Your task to perform on an android device: Open the calendar and show me this week's events? Image 0: 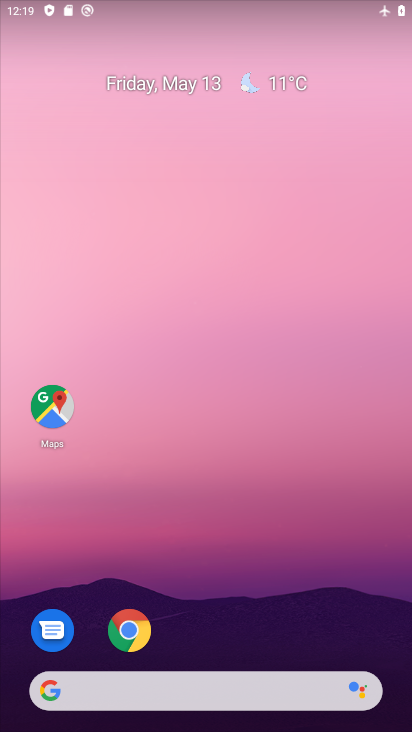
Step 0: drag from (364, 643) to (363, 3)
Your task to perform on an android device: Open the calendar and show me this week's events? Image 1: 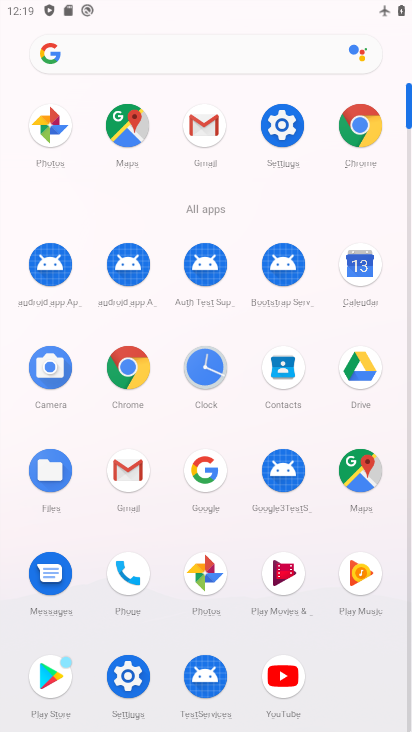
Step 1: click (364, 261)
Your task to perform on an android device: Open the calendar and show me this week's events? Image 2: 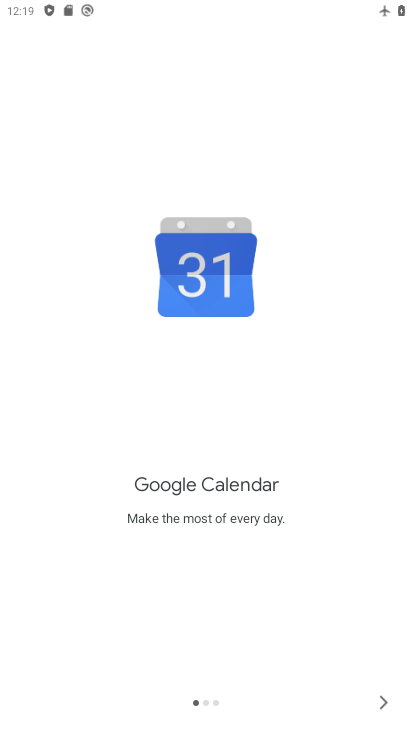
Step 2: click (384, 710)
Your task to perform on an android device: Open the calendar and show me this week's events? Image 3: 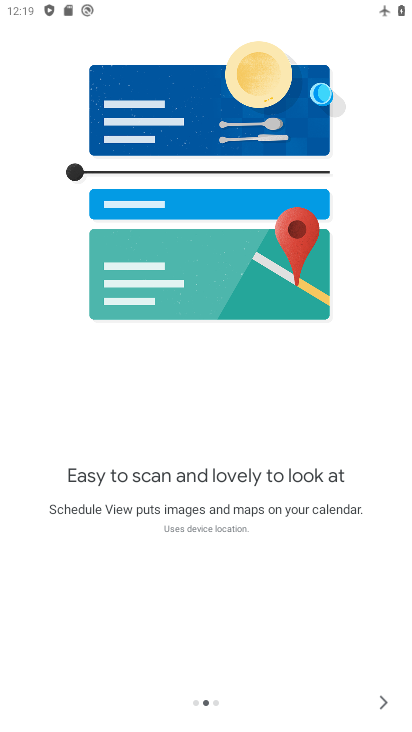
Step 3: click (384, 710)
Your task to perform on an android device: Open the calendar and show me this week's events? Image 4: 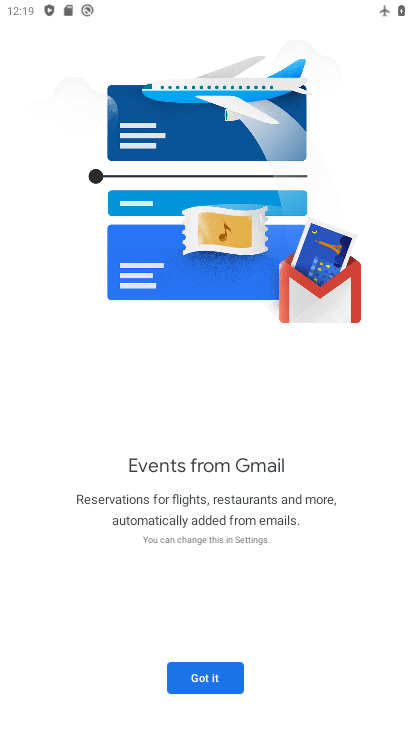
Step 4: click (194, 679)
Your task to perform on an android device: Open the calendar and show me this week's events? Image 5: 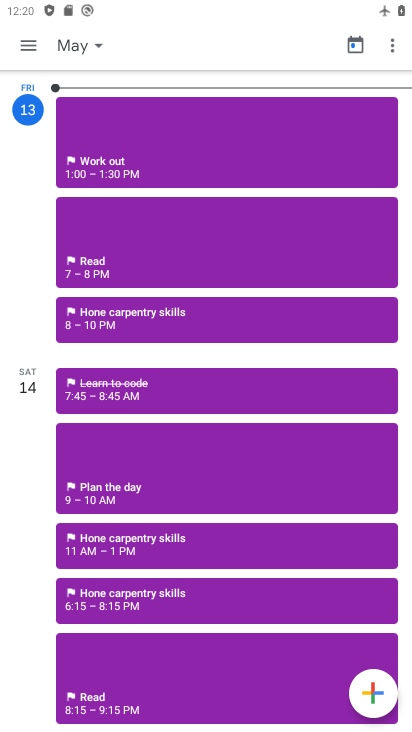
Step 5: click (33, 45)
Your task to perform on an android device: Open the calendar and show me this week's events? Image 6: 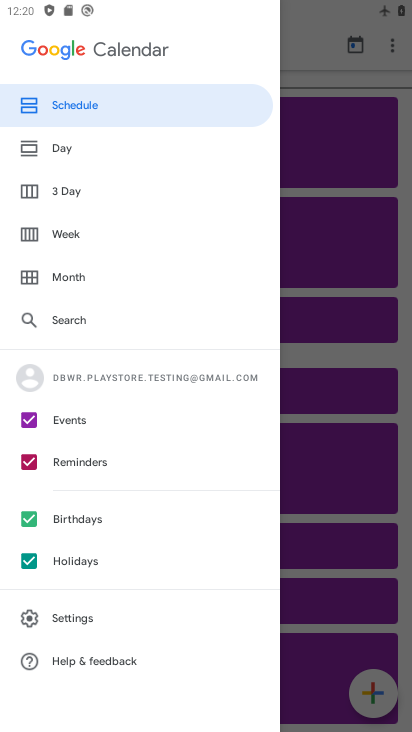
Step 6: click (27, 462)
Your task to perform on an android device: Open the calendar and show me this week's events? Image 7: 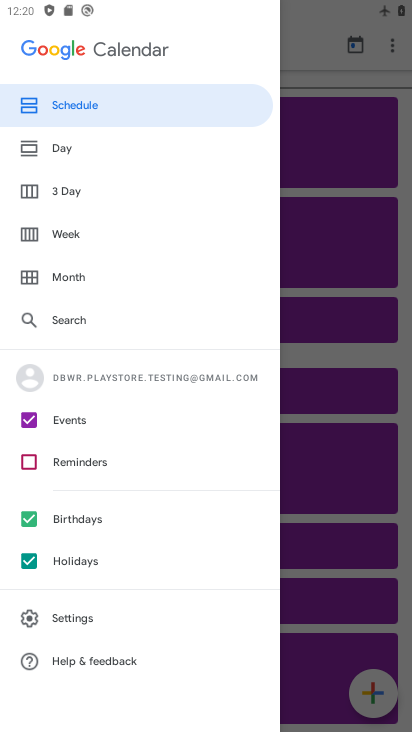
Step 7: click (24, 523)
Your task to perform on an android device: Open the calendar and show me this week's events? Image 8: 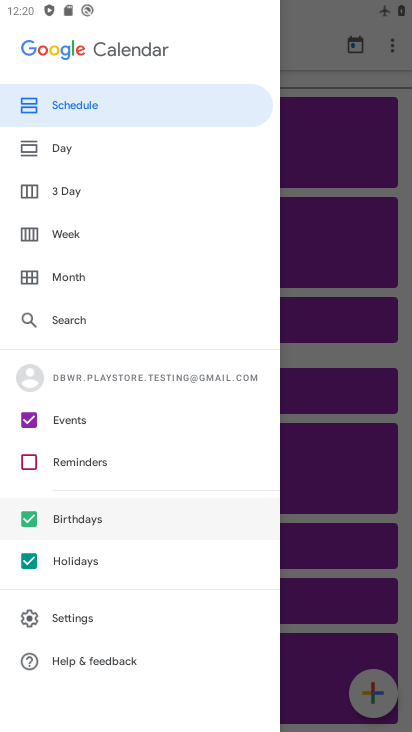
Step 8: click (23, 552)
Your task to perform on an android device: Open the calendar and show me this week's events? Image 9: 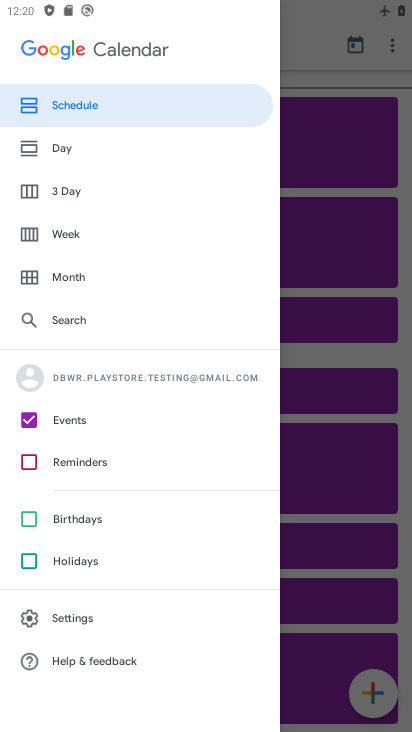
Step 9: click (37, 105)
Your task to perform on an android device: Open the calendar and show me this week's events? Image 10: 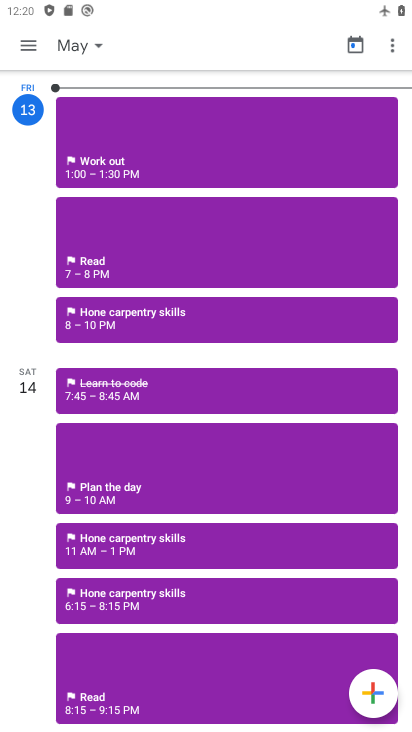
Step 10: click (27, 44)
Your task to perform on an android device: Open the calendar and show me this week's events? Image 11: 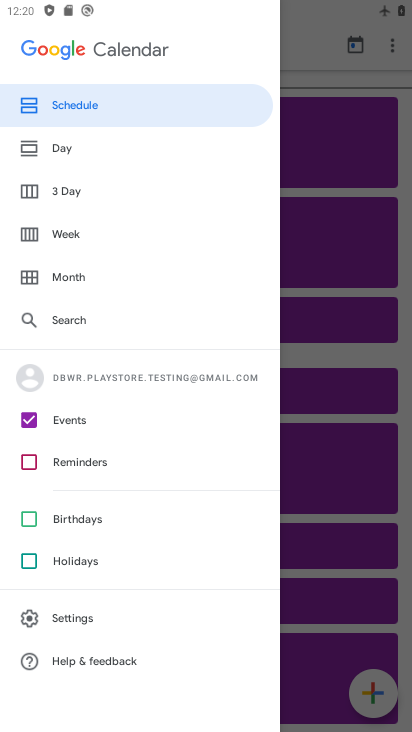
Step 11: click (64, 240)
Your task to perform on an android device: Open the calendar and show me this week's events? Image 12: 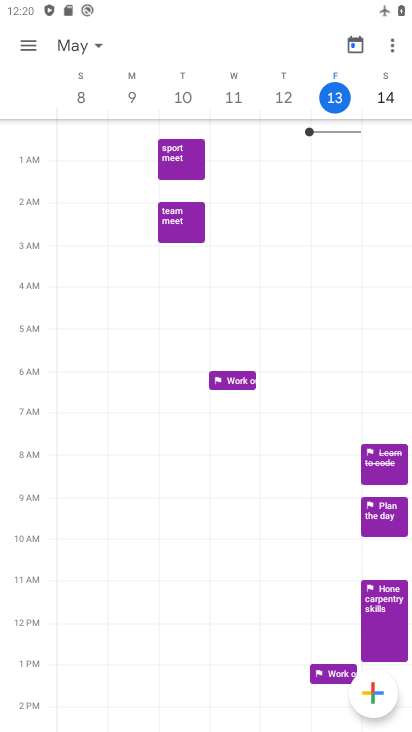
Step 12: task complete